Your task to perform on an android device: Go to ESPN.com Image 0: 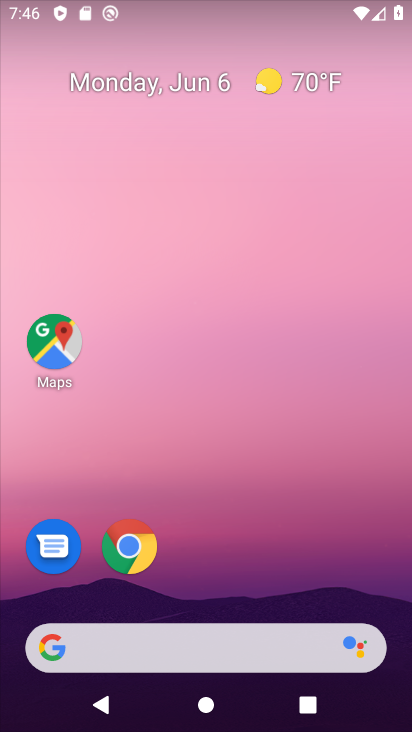
Step 0: click (393, 393)
Your task to perform on an android device: Go to ESPN.com Image 1: 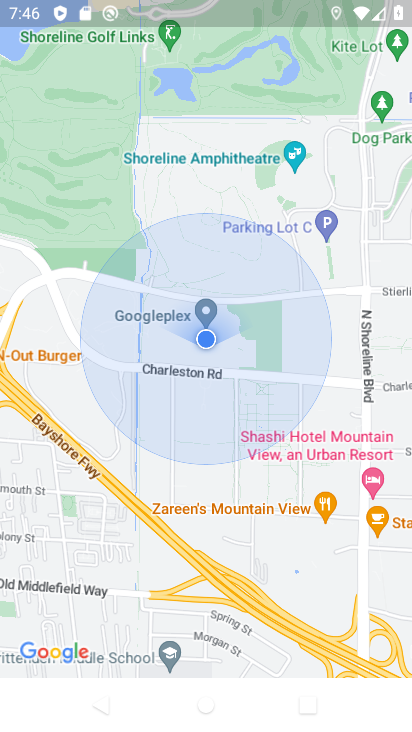
Step 1: press home button
Your task to perform on an android device: Go to ESPN.com Image 2: 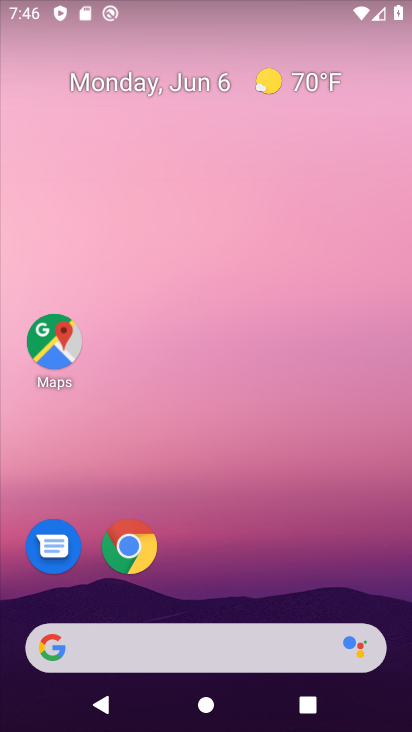
Step 2: drag from (183, 610) to (240, 92)
Your task to perform on an android device: Go to ESPN.com Image 3: 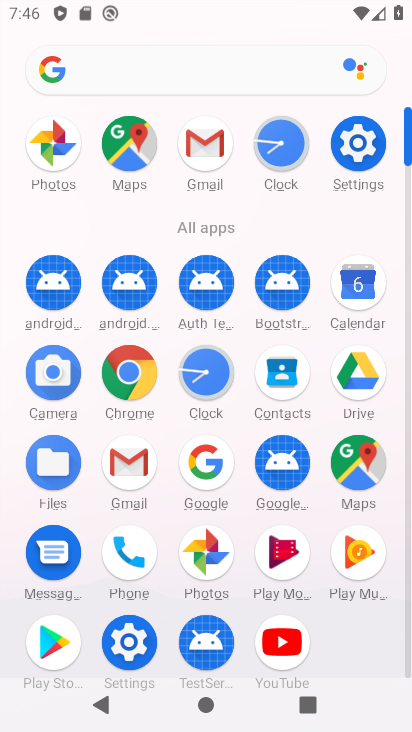
Step 3: click (89, 68)
Your task to perform on an android device: Go to ESPN.com Image 4: 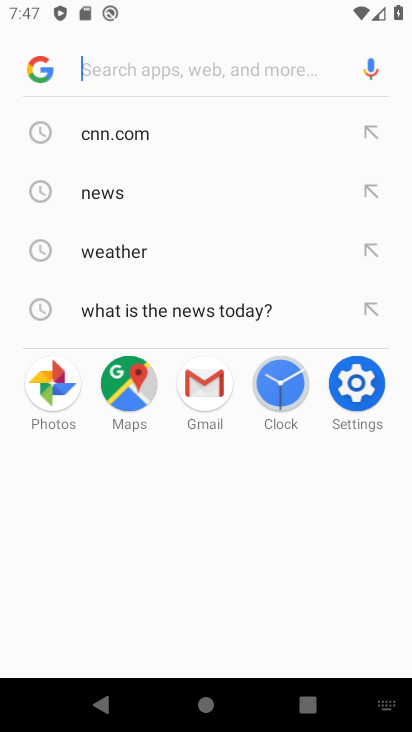
Step 4: type "ESPN.com"
Your task to perform on an android device: Go to ESPN.com Image 5: 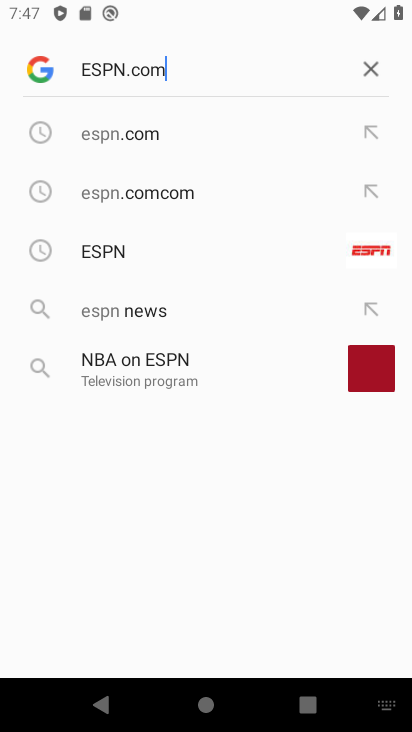
Step 5: type ""
Your task to perform on an android device: Go to ESPN.com Image 6: 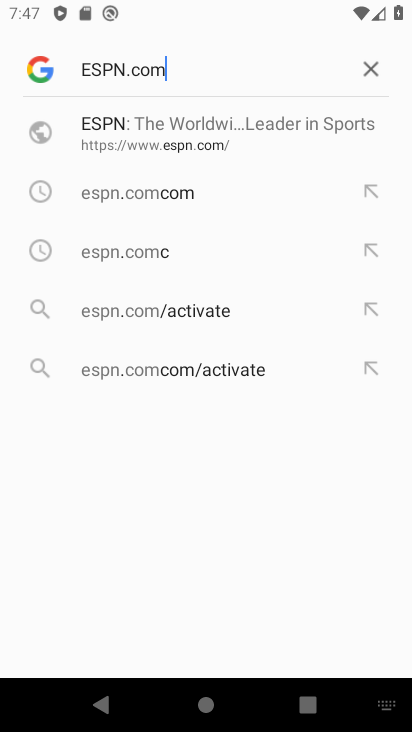
Step 6: click (175, 140)
Your task to perform on an android device: Go to ESPN.com Image 7: 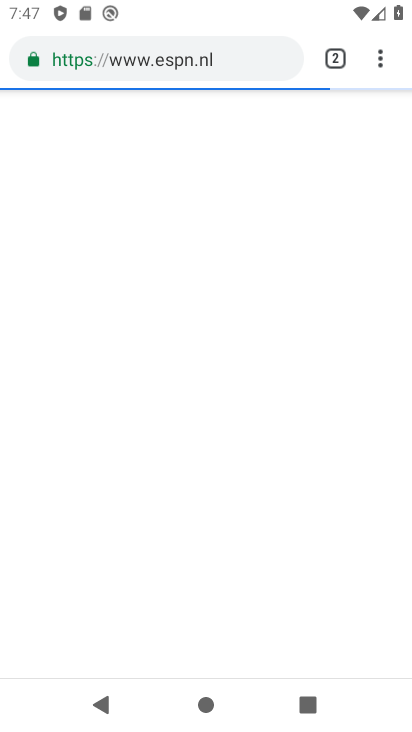
Step 7: task complete